Your task to perform on an android device: Play the last video I watched on Youtube Image 0: 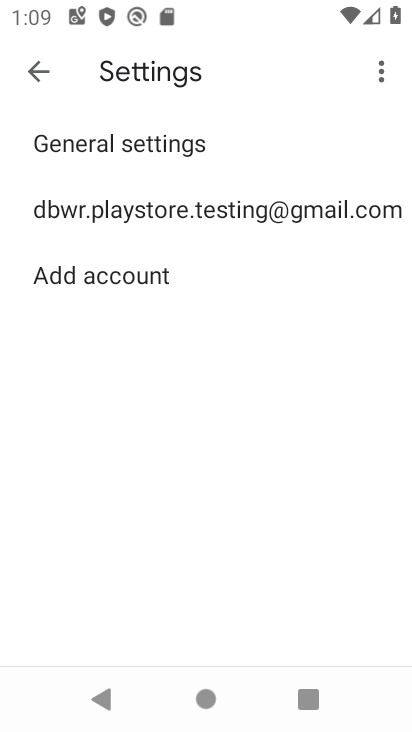
Step 0: press home button
Your task to perform on an android device: Play the last video I watched on Youtube Image 1: 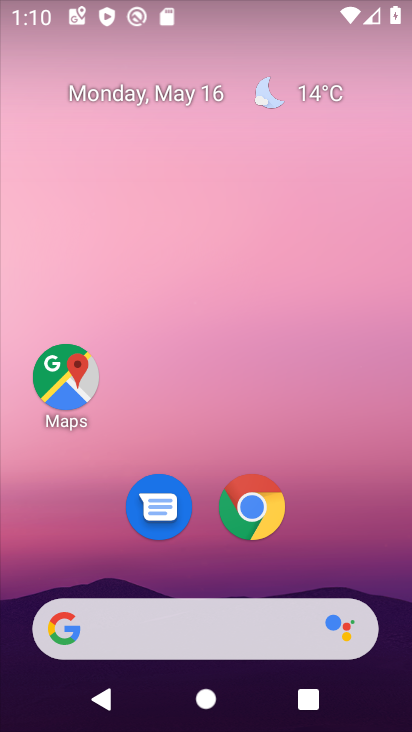
Step 1: drag from (103, 545) to (328, 164)
Your task to perform on an android device: Play the last video I watched on Youtube Image 2: 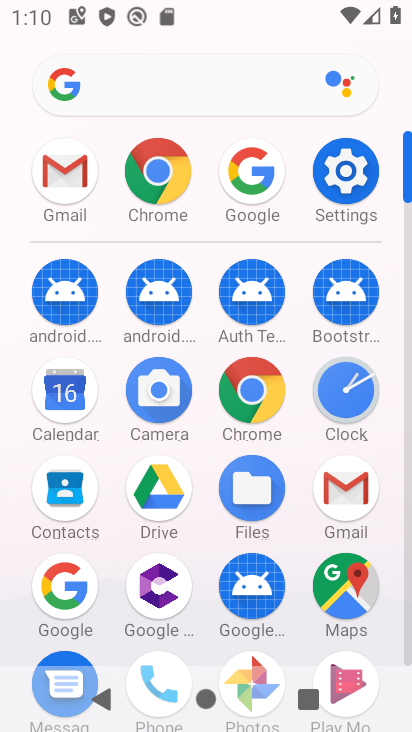
Step 2: drag from (154, 610) to (347, 238)
Your task to perform on an android device: Play the last video I watched on Youtube Image 3: 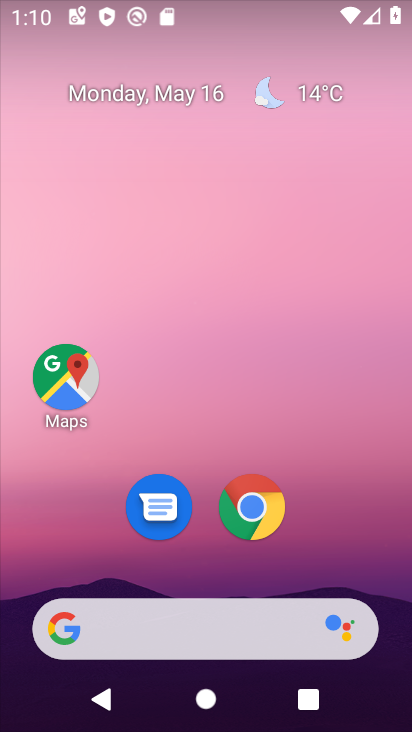
Step 3: drag from (136, 411) to (360, 7)
Your task to perform on an android device: Play the last video I watched on Youtube Image 4: 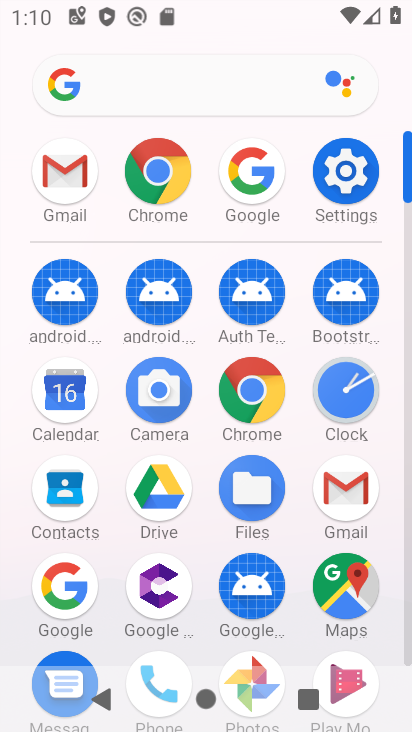
Step 4: drag from (65, 391) to (276, 78)
Your task to perform on an android device: Play the last video I watched on Youtube Image 5: 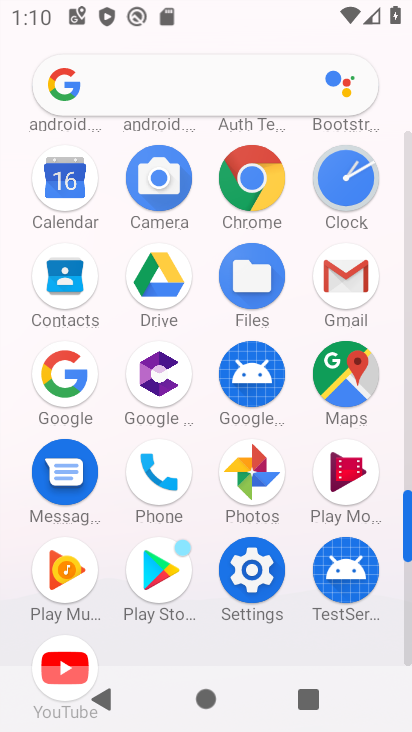
Step 5: click (62, 657)
Your task to perform on an android device: Play the last video I watched on Youtube Image 6: 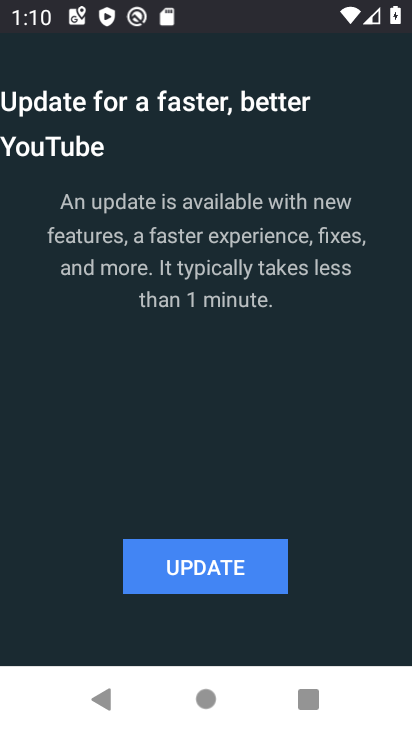
Step 6: task complete